Your task to perform on an android device: Open Youtube and go to the subscriptions tab Image 0: 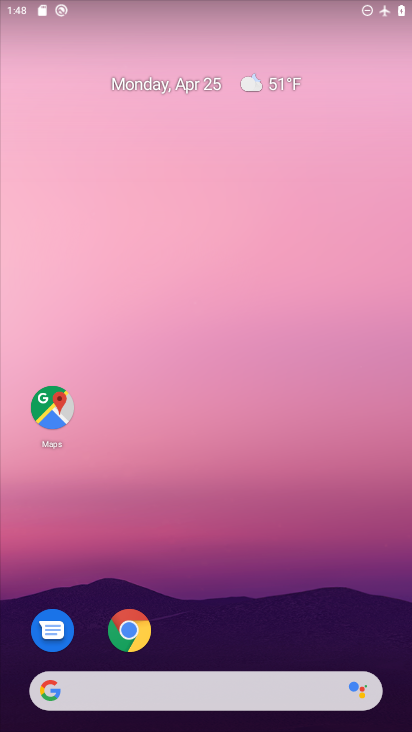
Step 0: drag from (319, 584) to (379, 97)
Your task to perform on an android device: Open Youtube and go to the subscriptions tab Image 1: 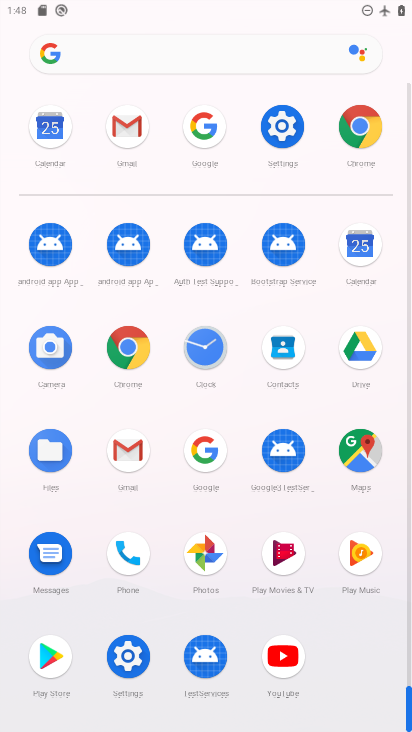
Step 1: click (283, 654)
Your task to perform on an android device: Open Youtube and go to the subscriptions tab Image 2: 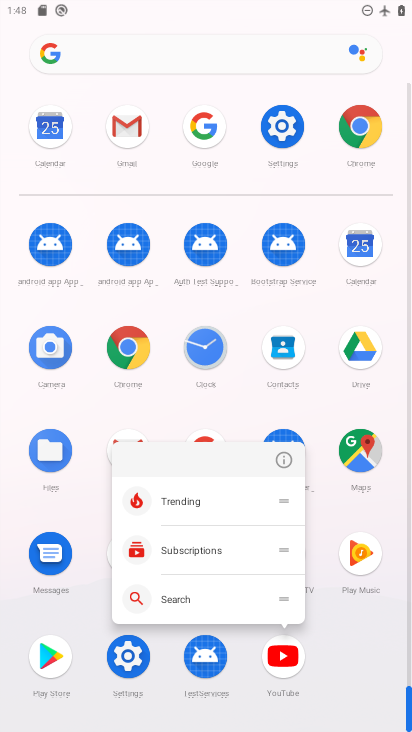
Step 2: click (283, 653)
Your task to perform on an android device: Open Youtube and go to the subscriptions tab Image 3: 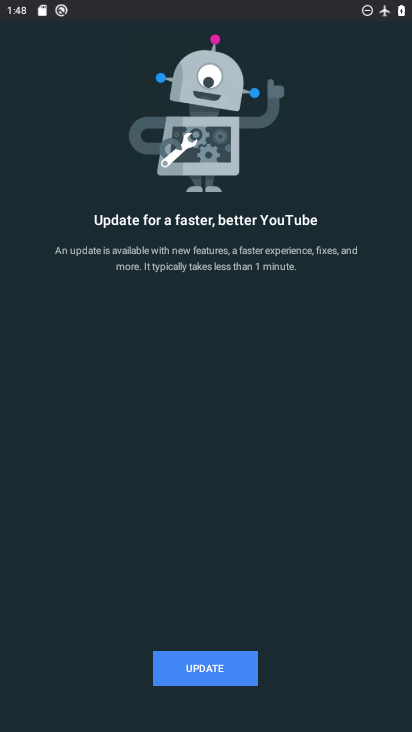
Step 3: click (241, 668)
Your task to perform on an android device: Open Youtube and go to the subscriptions tab Image 4: 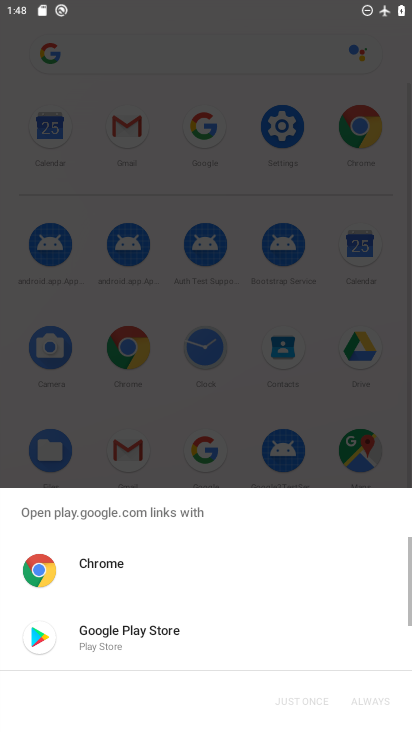
Step 4: click (85, 622)
Your task to perform on an android device: Open Youtube and go to the subscriptions tab Image 5: 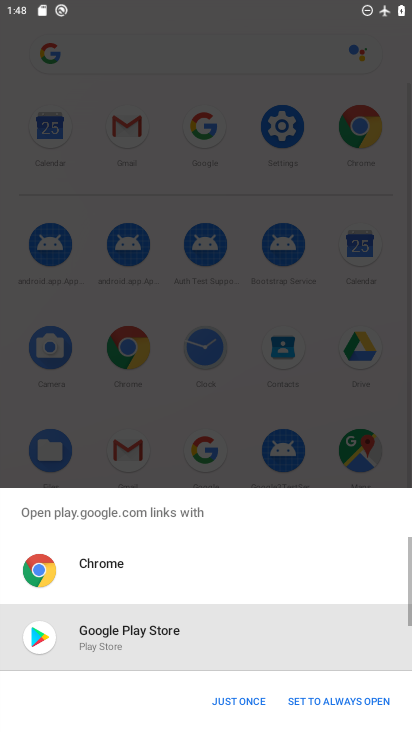
Step 5: click (223, 699)
Your task to perform on an android device: Open Youtube and go to the subscriptions tab Image 6: 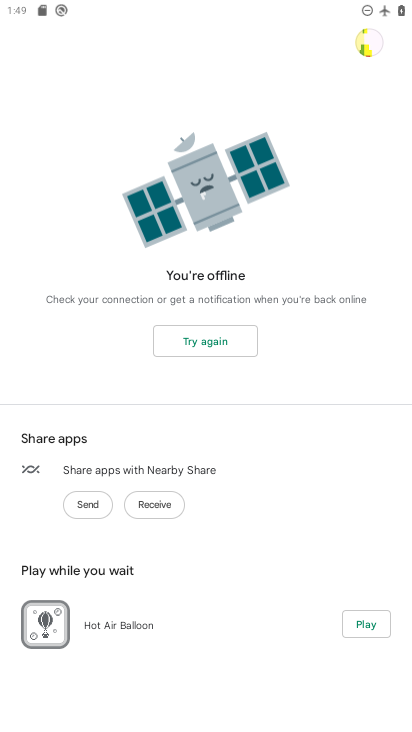
Step 6: click (235, 335)
Your task to perform on an android device: Open Youtube and go to the subscriptions tab Image 7: 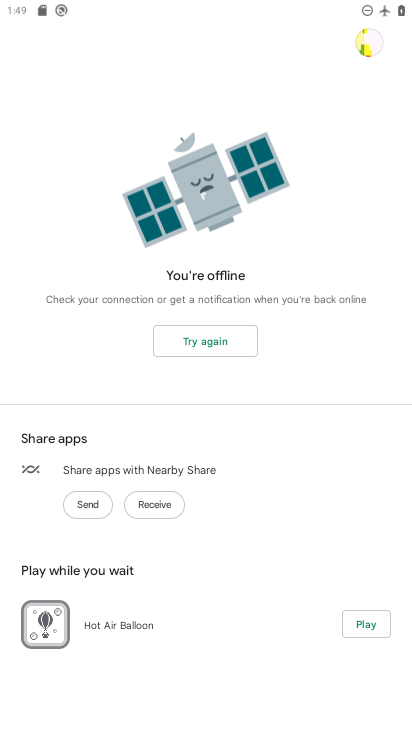
Step 7: click (235, 336)
Your task to perform on an android device: Open Youtube and go to the subscriptions tab Image 8: 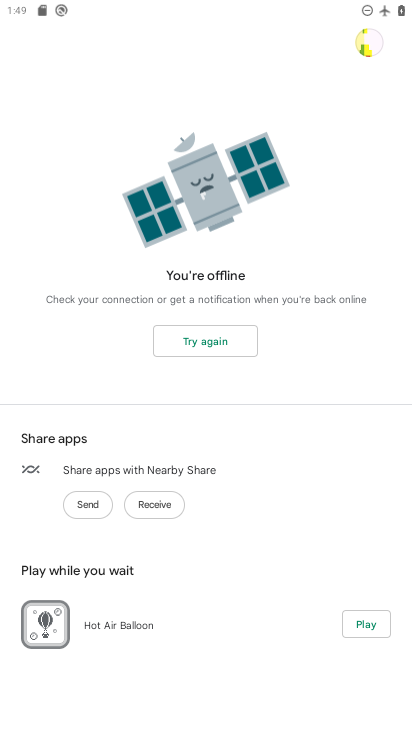
Step 8: click (235, 335)
Your task to perform on an android device: Open Youtube and go to the subscriptions tab Image 9: 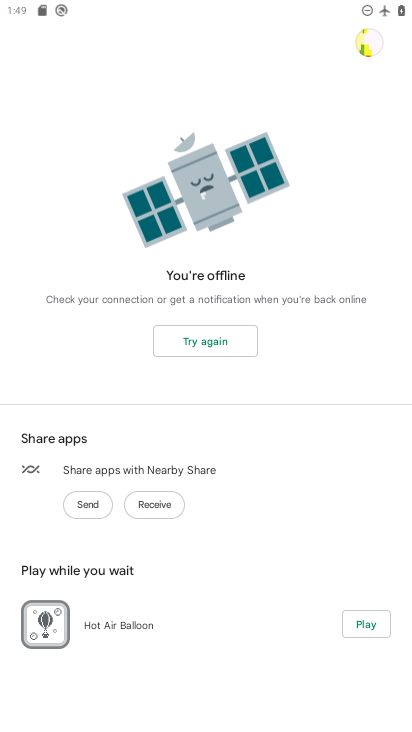
Step 9: click (235, 335)
Your task to perform on an android device: Open Youtube and go to the subscriptions tab Image 10: 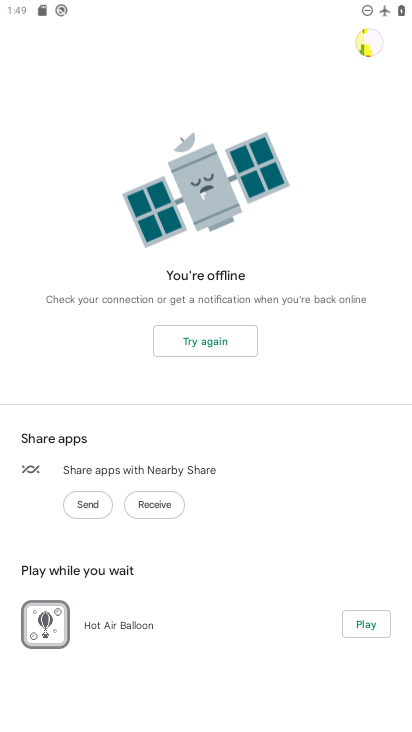
Step 10: task complete